Your task to perform on an android device: check google app version Image 0: 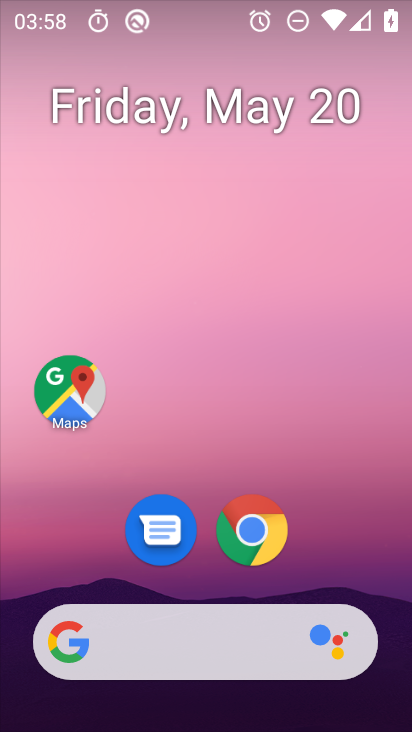
Step 0: drag from (397, 680) to (347, 283)
Your task to perform on an android device: check google app version Image 1: 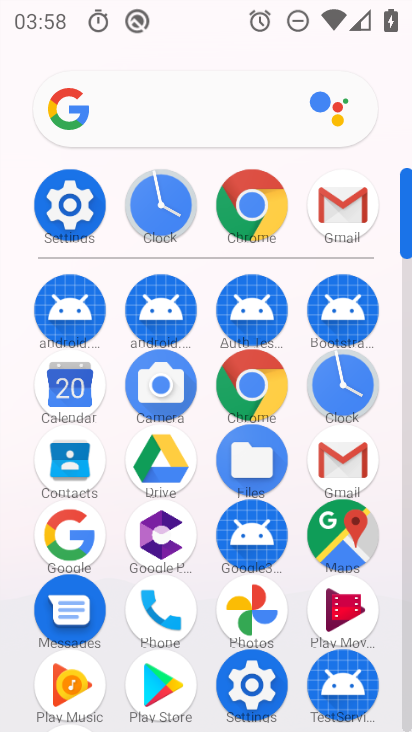
Step 1: drag from (409, 167) to (408, 76)
Your task to perform on an android device: check google app version Image 2: 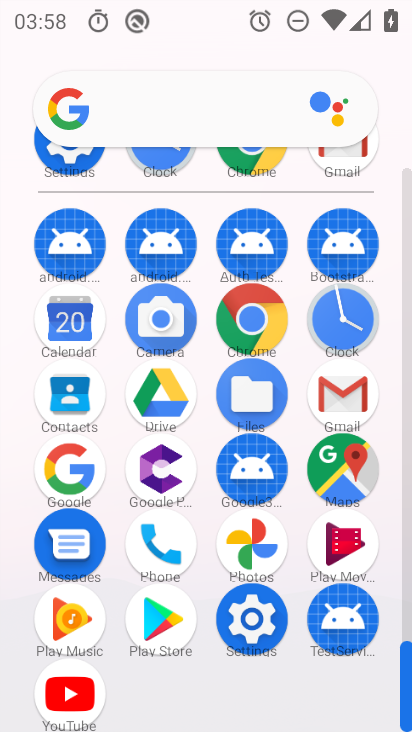
Step 2: click (75, 469)
Your task to perform on an android device: check google app version Image 3: 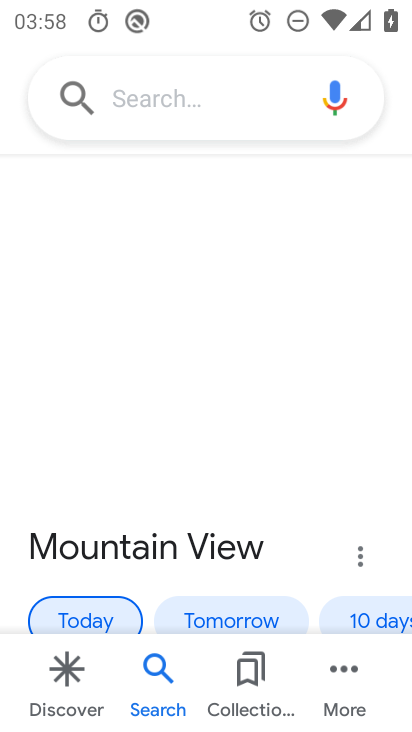
Step 3: click (334, 707)
Your task to perform on an android device: check google app version Image 4: 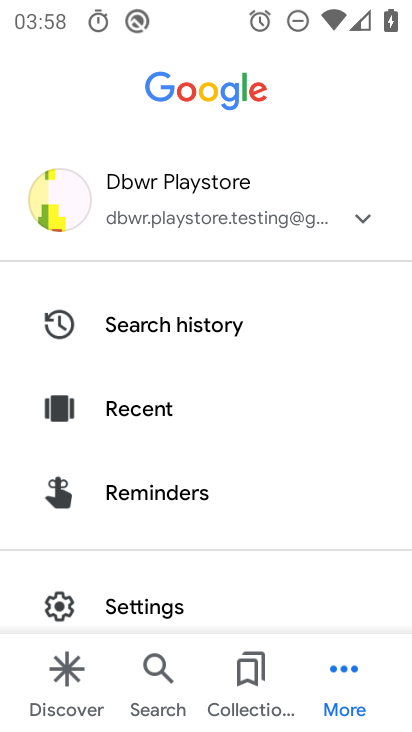
Step 4: click (120, 603)
Your task to perform on an android device: check google app version Image 5: 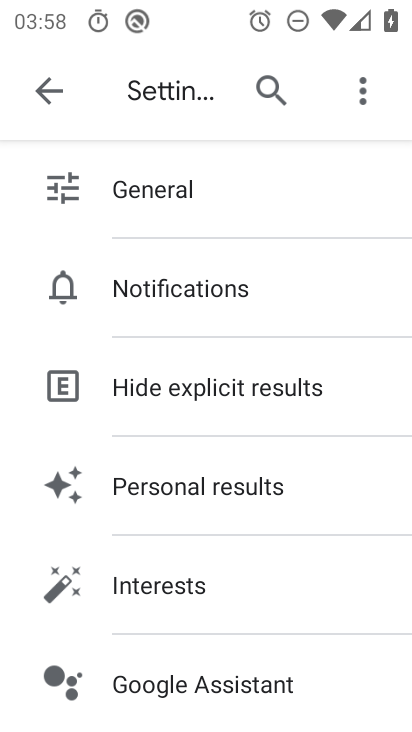
Step 5: drag from (274, 630) to (264, 346)
Your task to perform on an android device: check google app version Image 6: 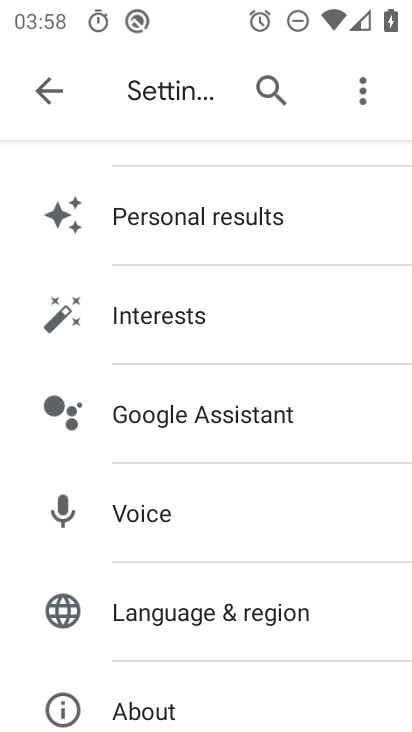
Step 6: click (131, 702)
Your task to perform on an android device: check google app version Image 7: 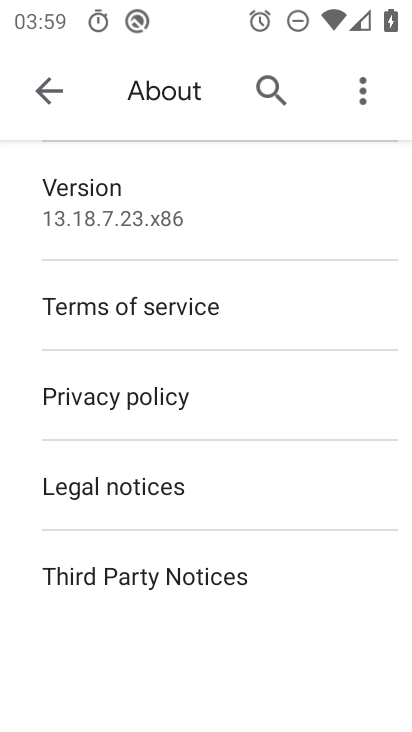
Step 7: click (101, 190)
Your task to perform on an android device: check google app version Image 8: 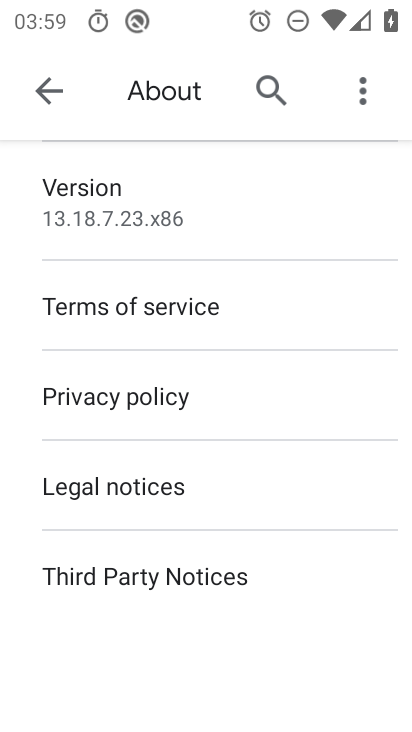
Step 8: task complete